Your task to perform on an android device: What is the news today? Image 0: 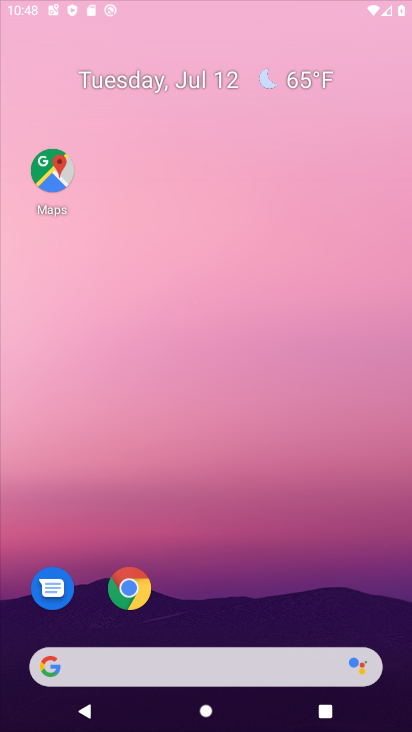
Step 0: click (139, 582)
Your task to perform on an android device: What is the news today? Image 1: 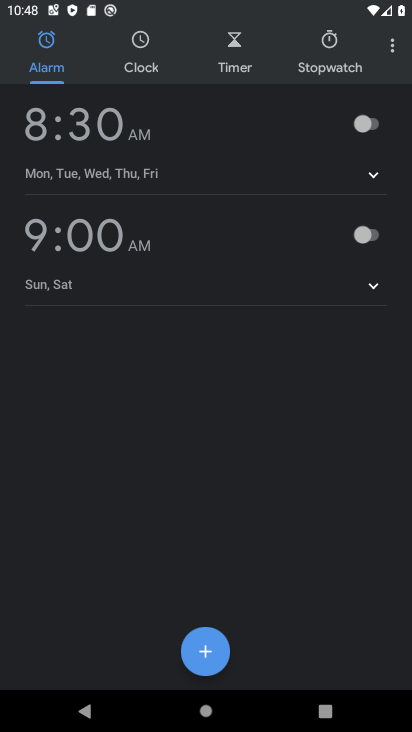
Step 1: press home button
Your task to perform on an android device: What is the news today? Image 2: 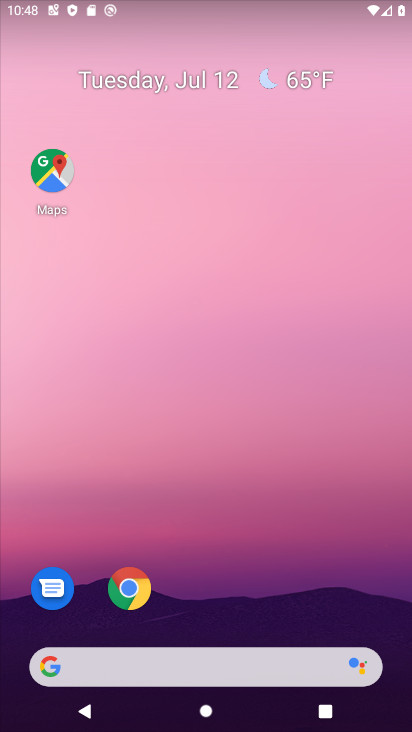
Step 2: click (105, 650)
Your task to perform on an android device: What is the news today? Image 3: 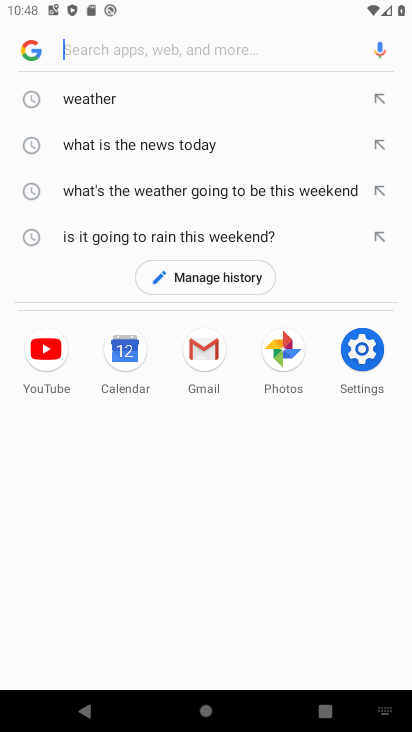
Step 3: click (93, 49)
Your task to perform on an android device: What is the news today? Image 4: 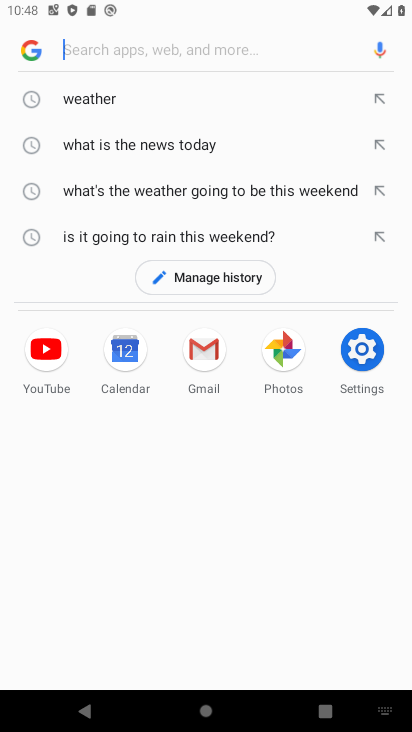
Step 4: type "What is the news today?"
Your task to perform on an android device: What is the news today? Image 5: 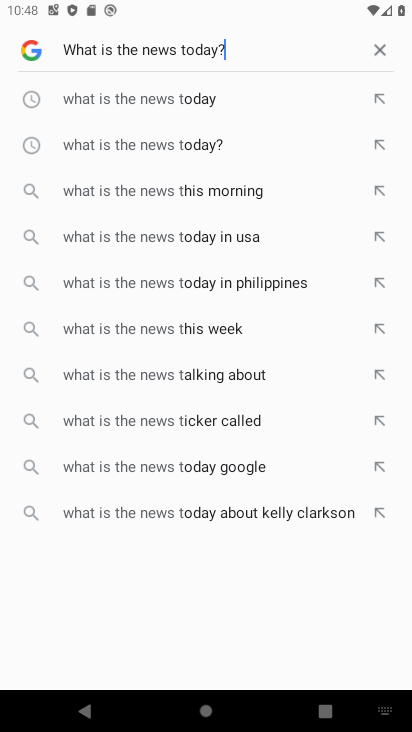
Step 5: type ""
Your task to perform on an android device: What is the news today? Image 6: 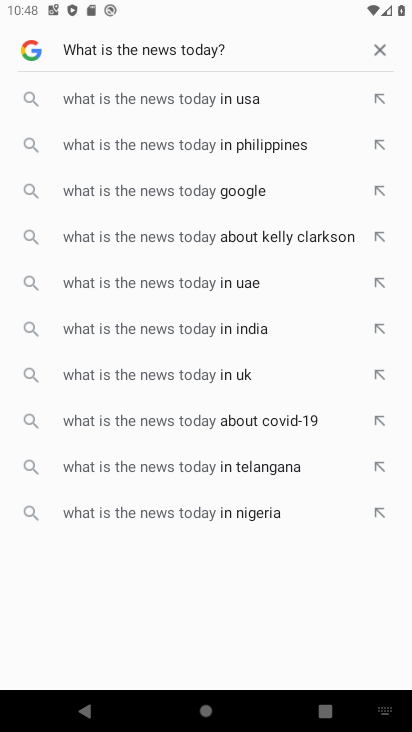
Step 6: type ""
Your task to perform on an android device: What is the news today? Image 7: 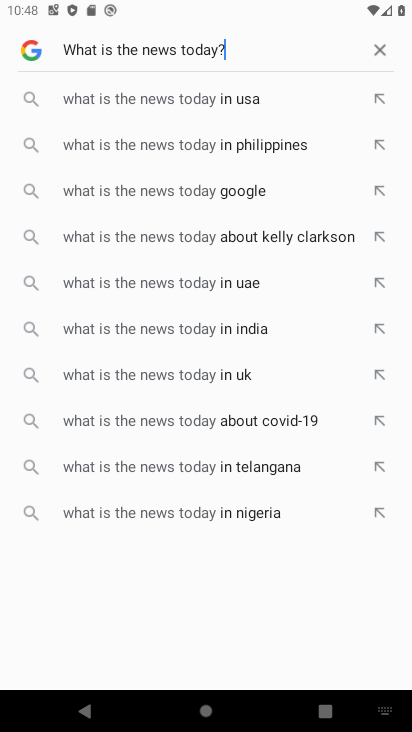
Step 7: type ""
Your task to perform on an android device: What is the news today? Image 8: 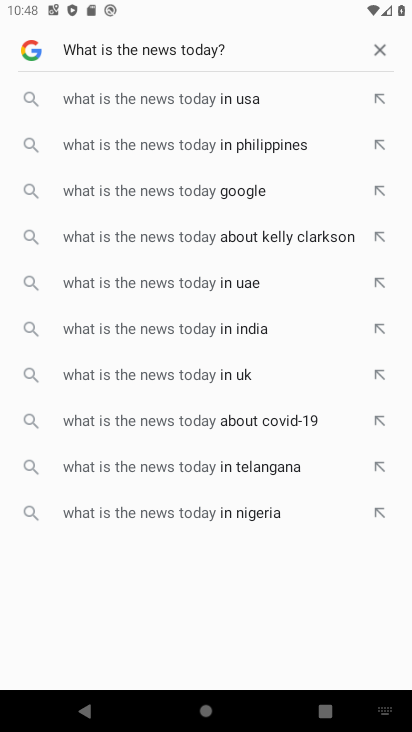
Step 8: type ""
Your task to perform on an android device: What is the news today? Image 9: 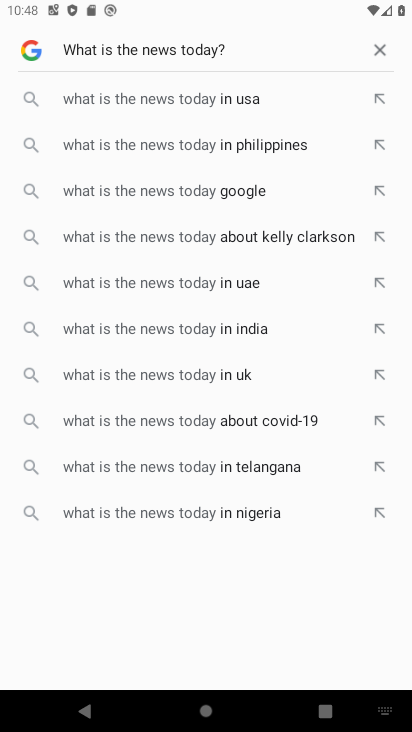
Step 9: task complete